Your task to perform on an android device: Open calendar and show me the first week of next month Image 0: 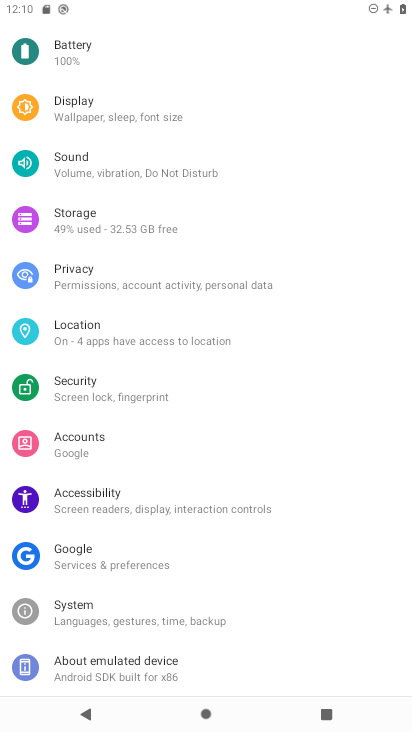
Step 0: press home button
Your task to perform on an android device: Open calendar and show me the first week of next month Image 1: 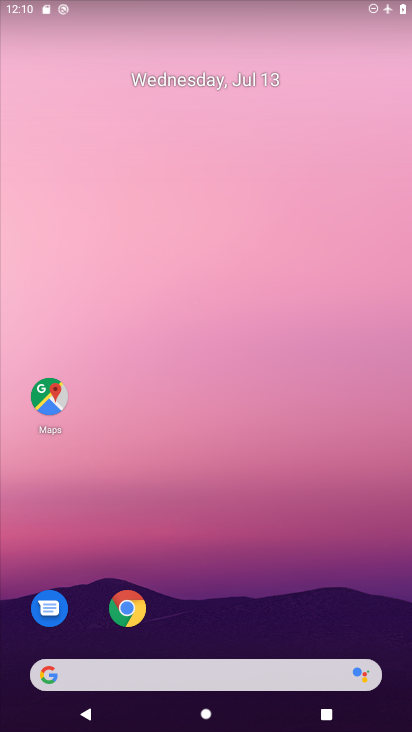
Step 1: click (202, 84)
Your task to perform on an android device: Open calendar and show me the first week of next month Image 2: 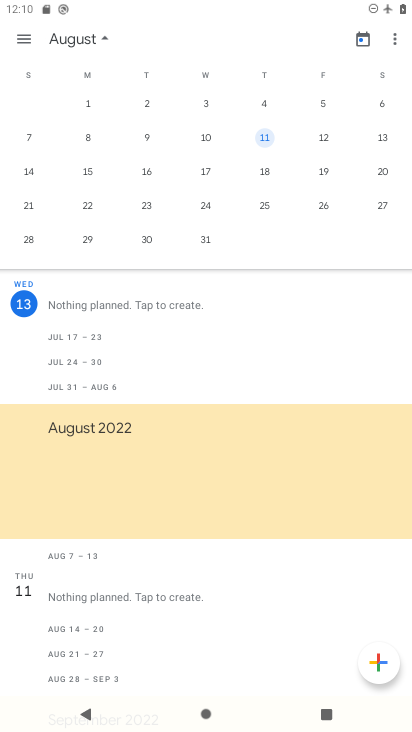
Step 2: drag from (382, 250) to (33, 231)
Your task to perform on an android device: Open calendar and show me the first week of next month Image 3: 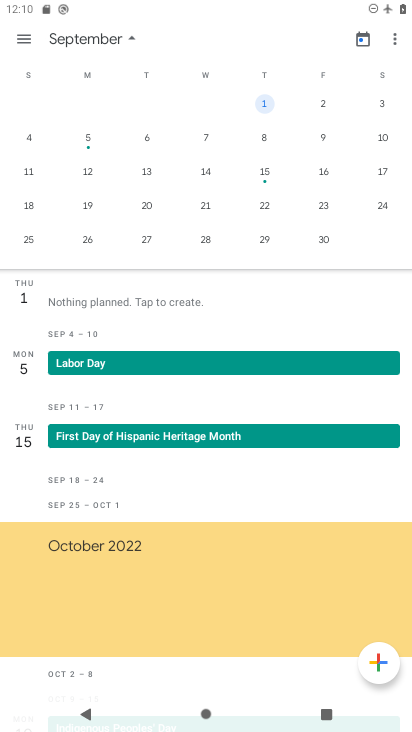
Step 3: click (315, 104)
Your task to perform on an android device: Open calendar and show me the first week of next month Image 4: 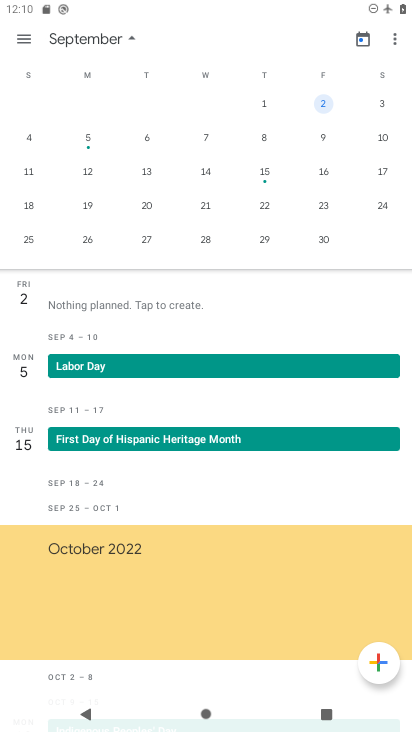
Step 4: task complete